Your task to perform on an android device: Open Chrome and go to settings Image 0: 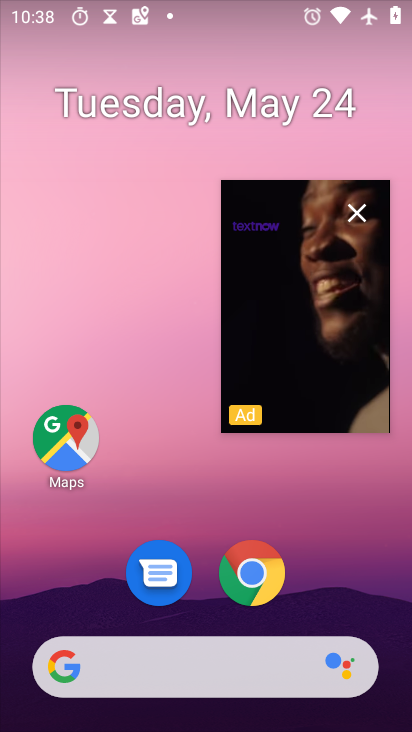
Step 0: click (358, 220)
Your task to perform on an android device: Open Chrome and go to settings Image 1: 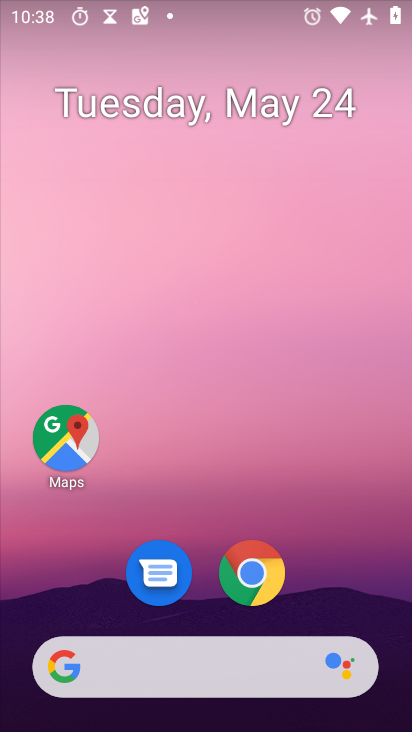
Step 1: drag from (363, 564) to (299, 2)
Your task to perform on an android device: Open Chrome and go to settings Image 2: 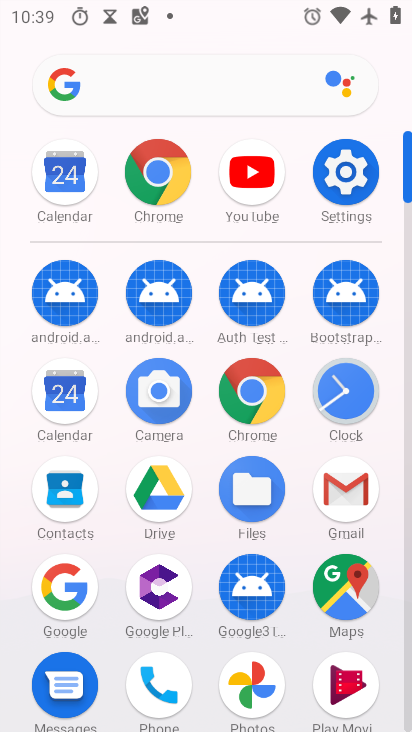
Step 2: click (142, 204)
Your task to perform on an android device: Open Chrome and go to settings Image 3: 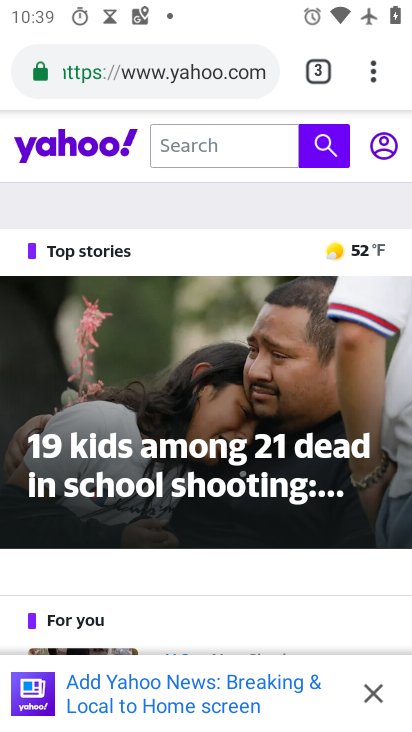
Step 3: drag from (380, 74) to (215, 565)
Your task to perform on an android device: Open Chrome and go to settings Image 4: 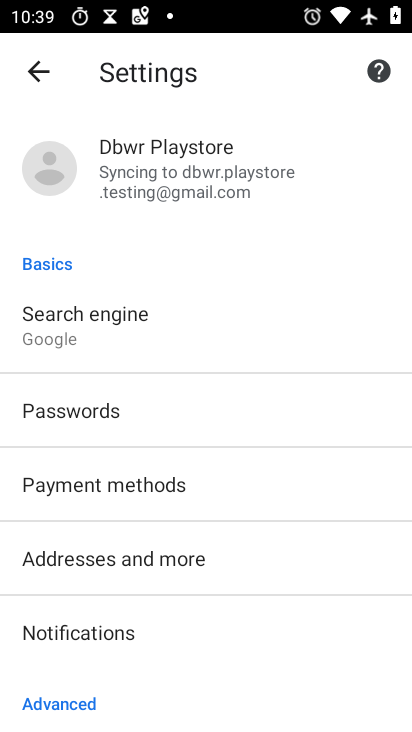
Step 4: click (276, 260)
Your task to perform on an android device: Open Chrome and go to settings Image 5: 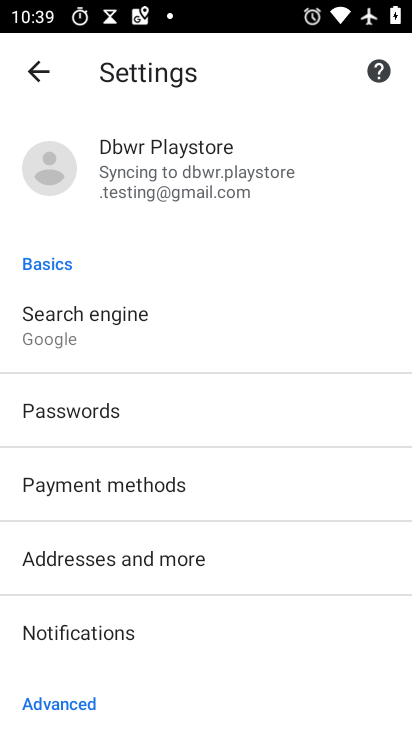
Step 5: task complete